Your task to perform on an android device: toggle notification dots Image 0: 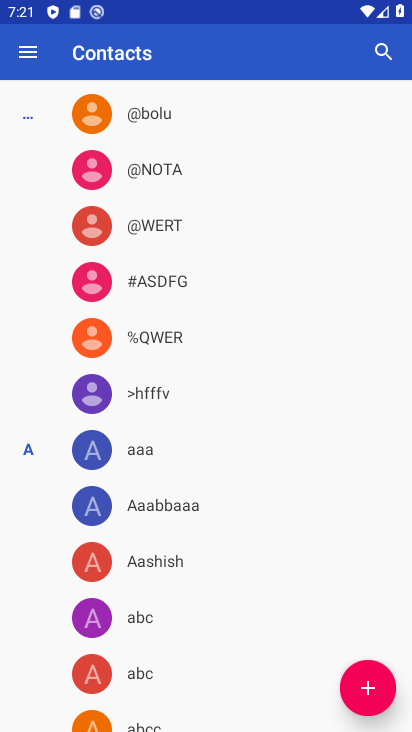
Step 0: press home button
Your task to perform on an android device: toggle notification dots Image 1: 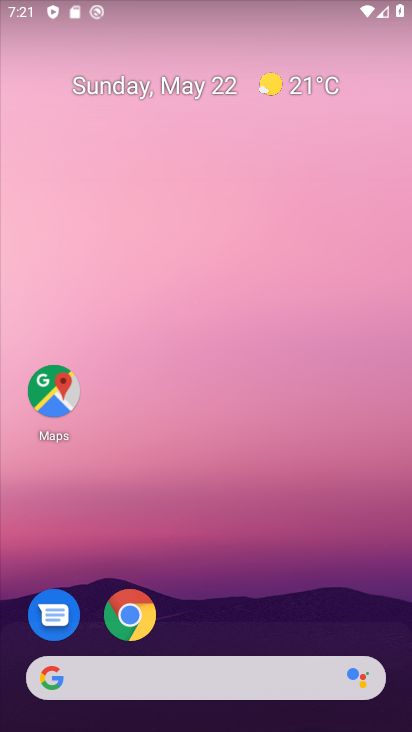
Step 1: drag from (261, 620) to (194, 245)
Your task to perform on an android device: toggle notification dots Image 2: 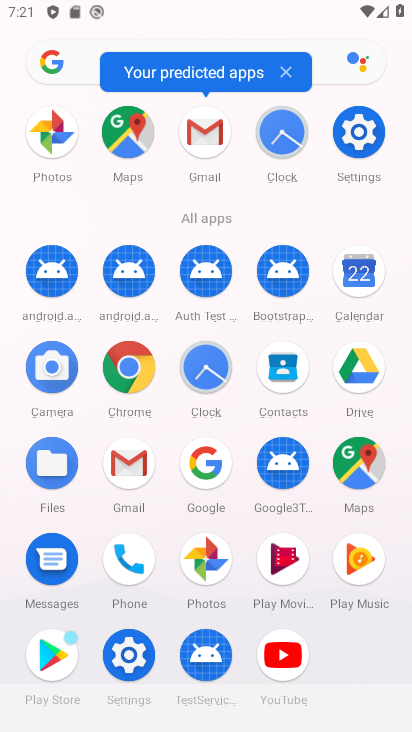
Step 2: click (373, 115)
Your task to perform on an android device: toggle notification dots Image 3: 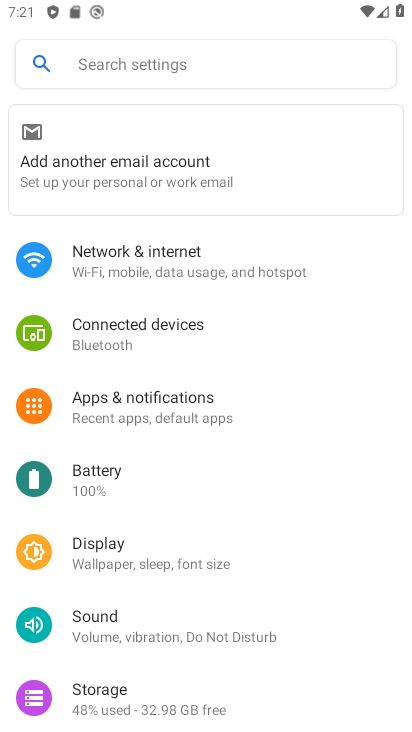
Step 3: click (171, 54)
Your task to perform on an android device: toggle notification dots Image 4: 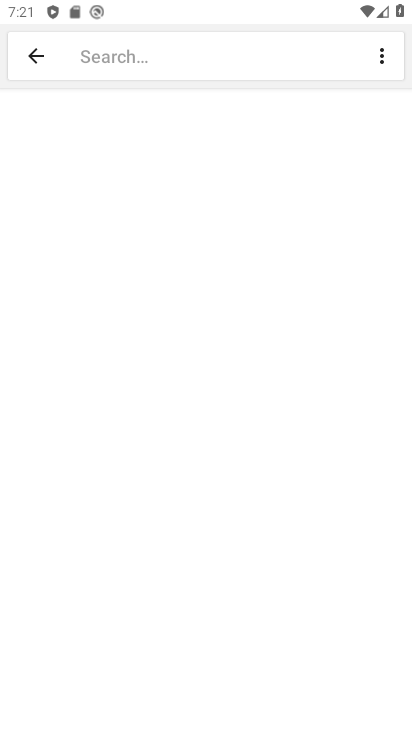
Step 4: type "notification dots"
Your task to perform on an android device: toggle notification dots Image 5: 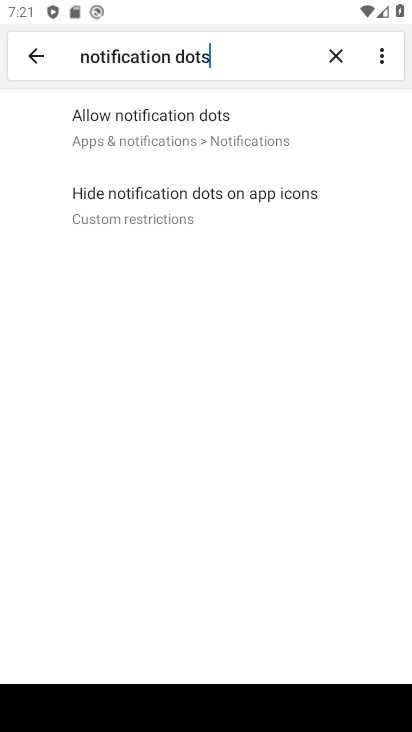
Step 5: click (115, 94)
Your task to perform on an android device: toggle notification dots Image 6: 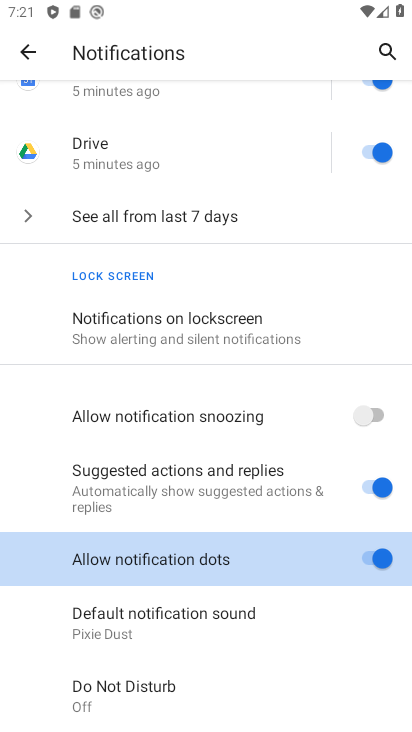
Step 6: click (372, 557)
Your task to perform on an android device: toggle notification dots Image 7: 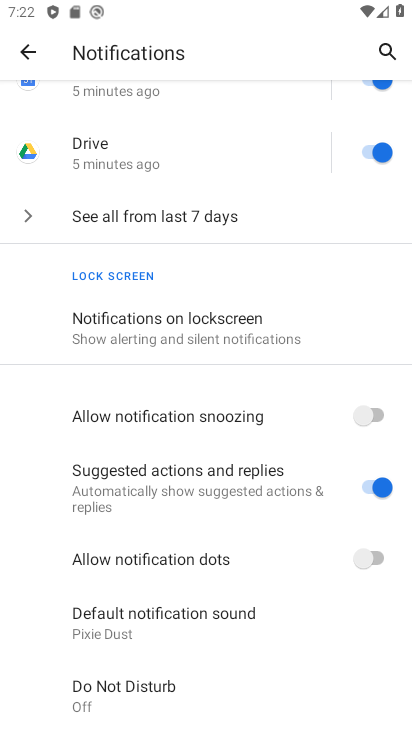
Step 7: task complete